Your task to perform on an android device: read, delete, or share a saved page in the chrome app Image 0: 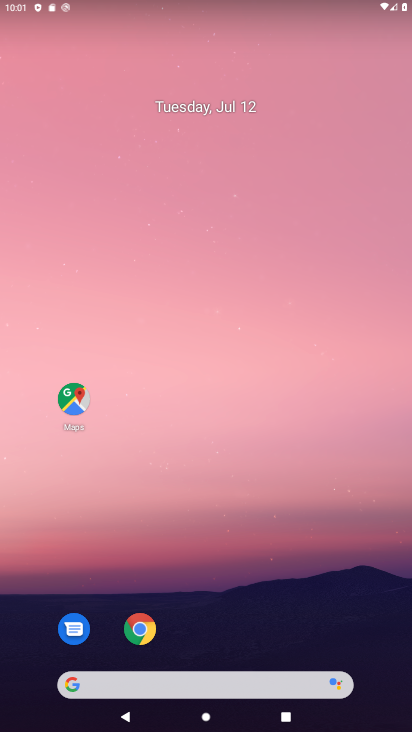
Step 0: click (149, 633)
Your task to perform on an android device: read, delete, or share a saved page in the chrome app Image 1: 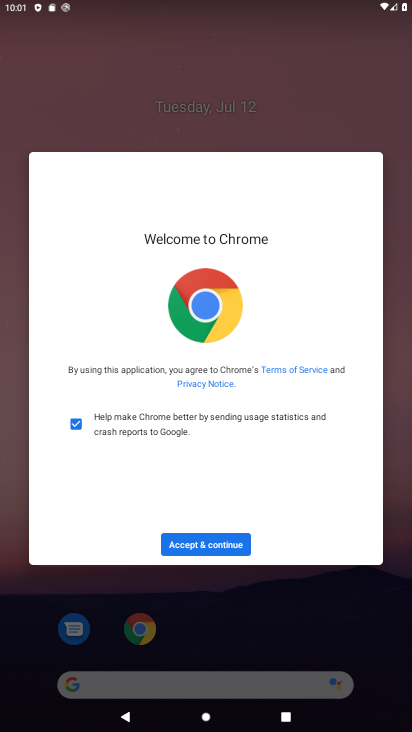
Step 1: click (203, 539)
Your task to perform on an android device: read, delete, or share a saved page in the chrome app Image 2: 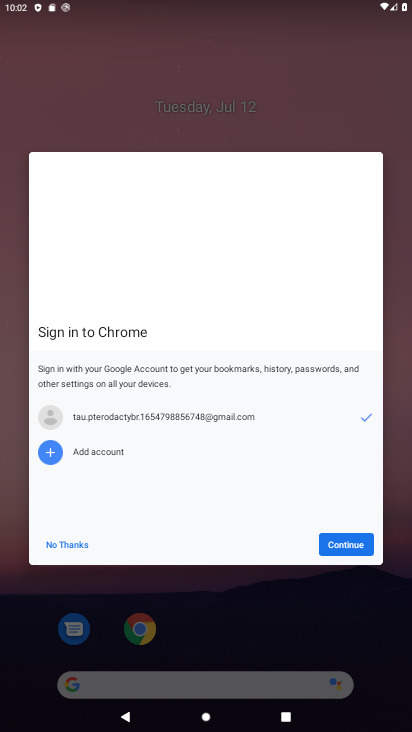
Step 2: click (330, 546)
Your task to perform on an android device: read, delete, or share a saved page in the chrome app Image 3: 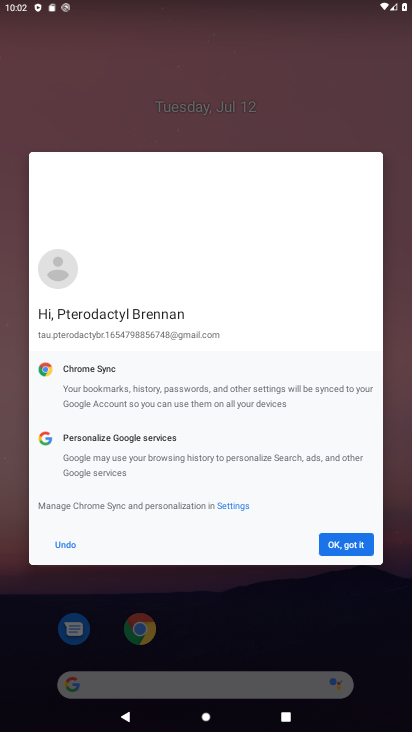
Step 3: click (357, 550)
Your task to perform on an android device: read, delete, or share a saved page in the chrome app Image 4: 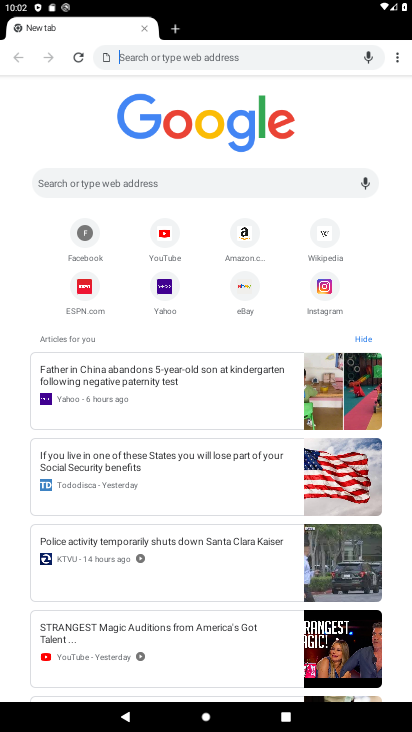
Step 4: click (400, 62)
Your task to perform on an android device: read, delete, or share a saved page in the chrome app Image 5: 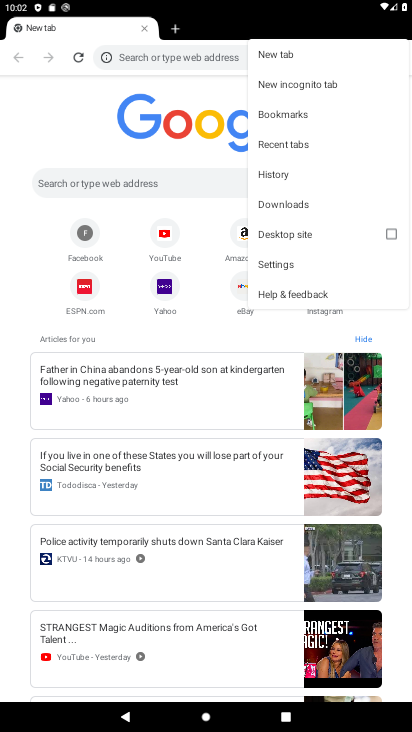
Step 5: click (270, 199)
Your task to perform on an android device: read, delete, or share a saved page in the chrome app Image 6: 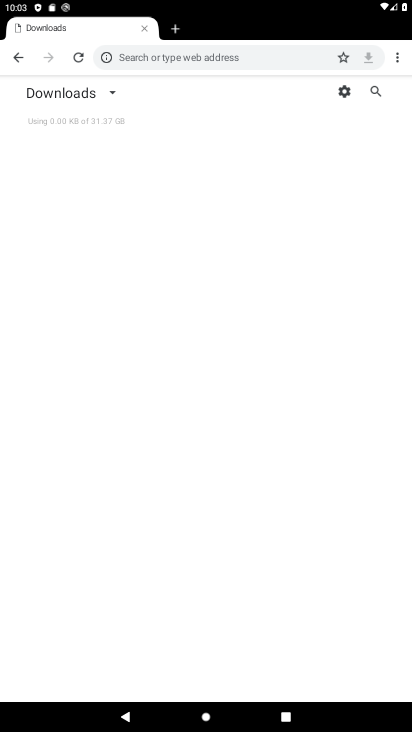
Step 6: task complete